Your task to perform on an android device: snooze an email in the gmail app Image 0: 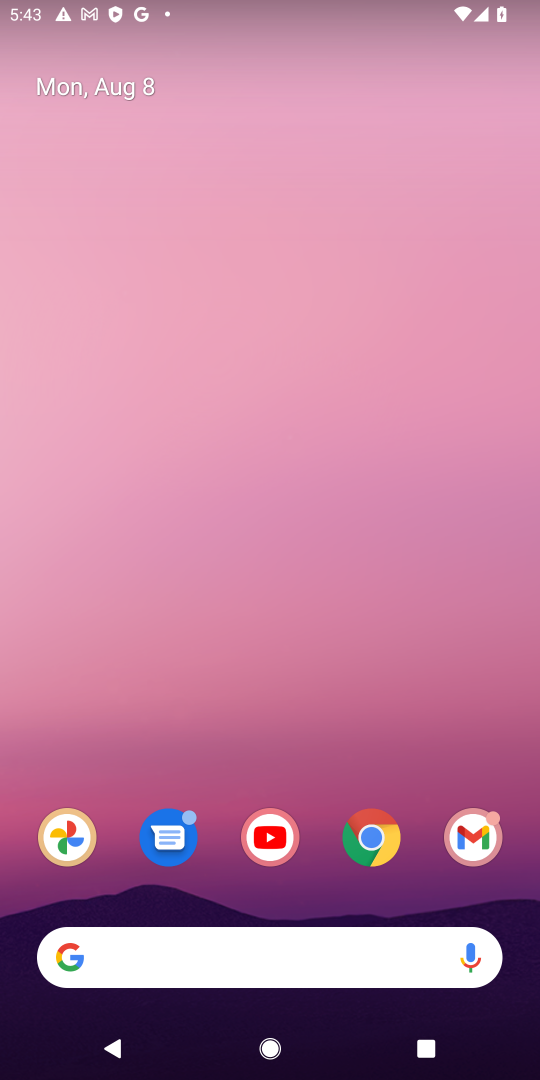
Step 0: drag from (257, 777) to (374, 1)
Your task to perform on an android device: snooze an email in the gmail app Image 1: 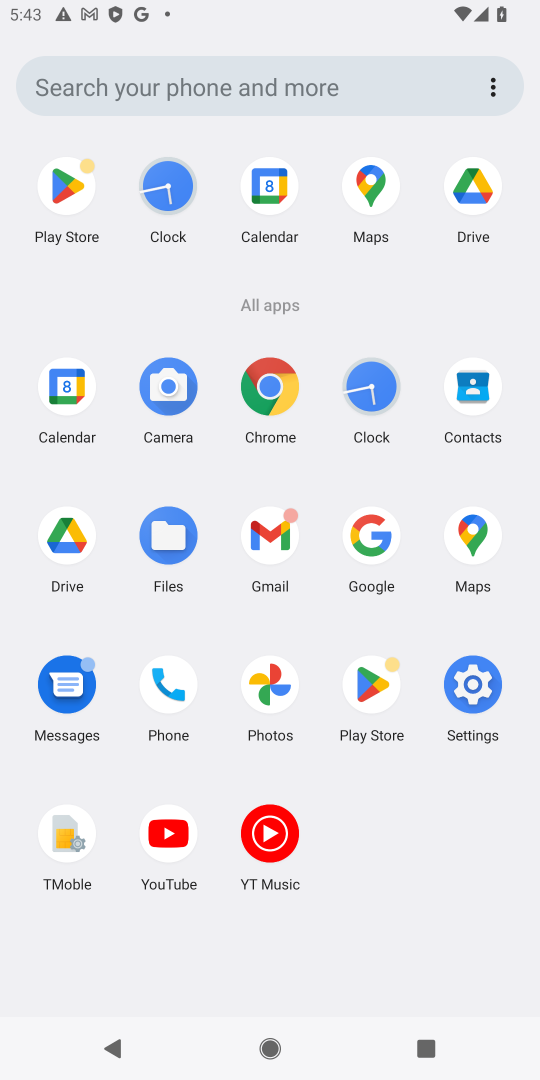
Step 1: click (306, 537)
Your task to perform on an android device: snooze an email in the gmail app Image 2: 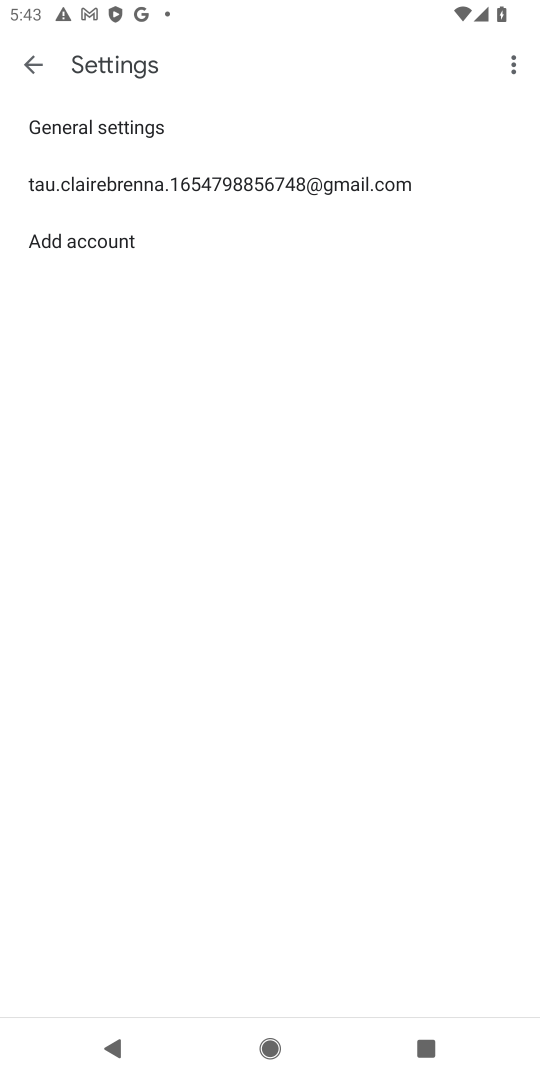
Step 2: click (26, 65)
Your task to perform on an android device: snooze an email in the gmail app Image 3: 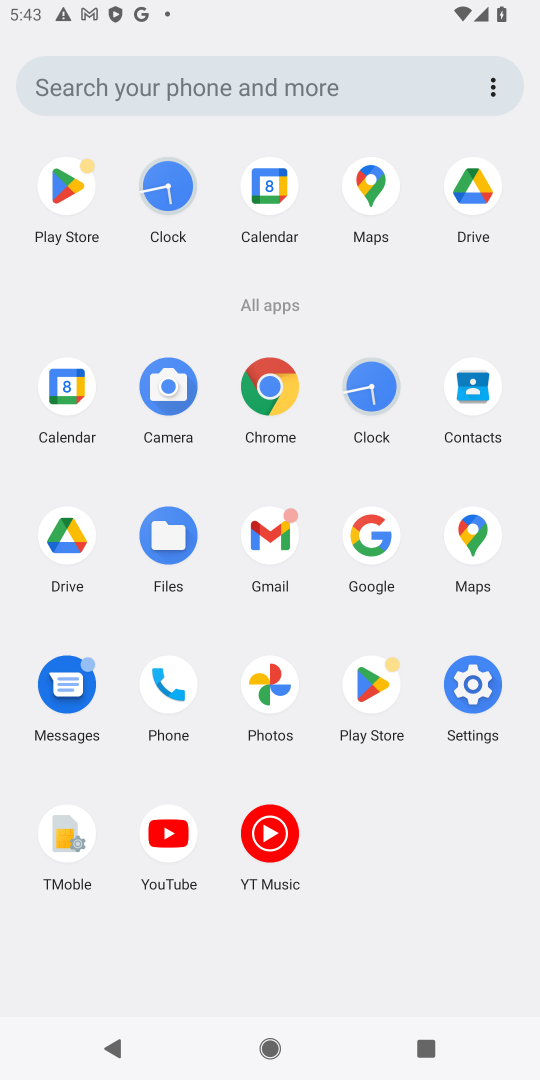
Step 3: click (289, 547)
Your task to perform on an android device: snooze an email in the gmail app Image 4: 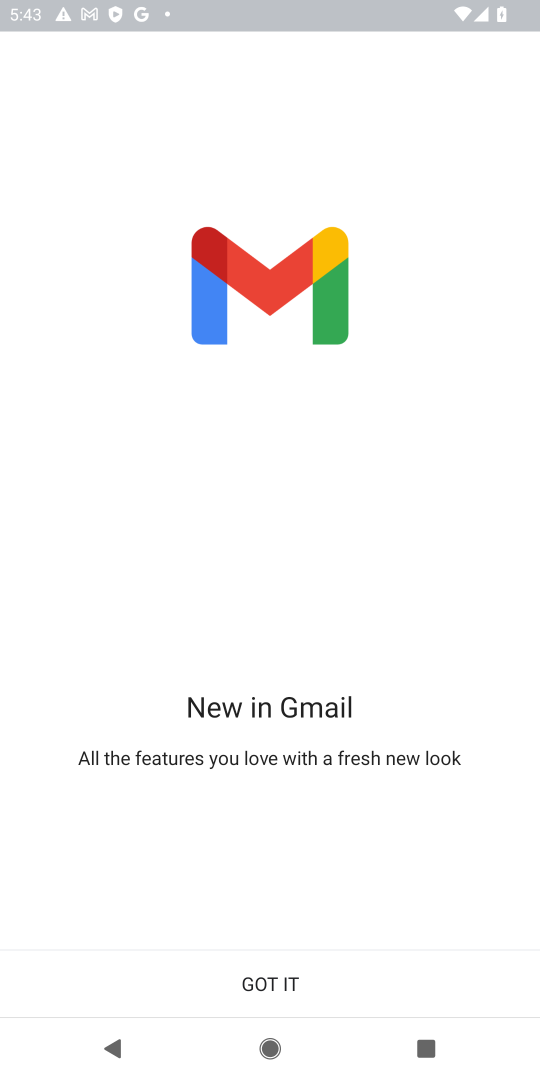
Step 4: click (282, 982)
Your task to perform on an android device: snooze an email in the gmail app Image 5: 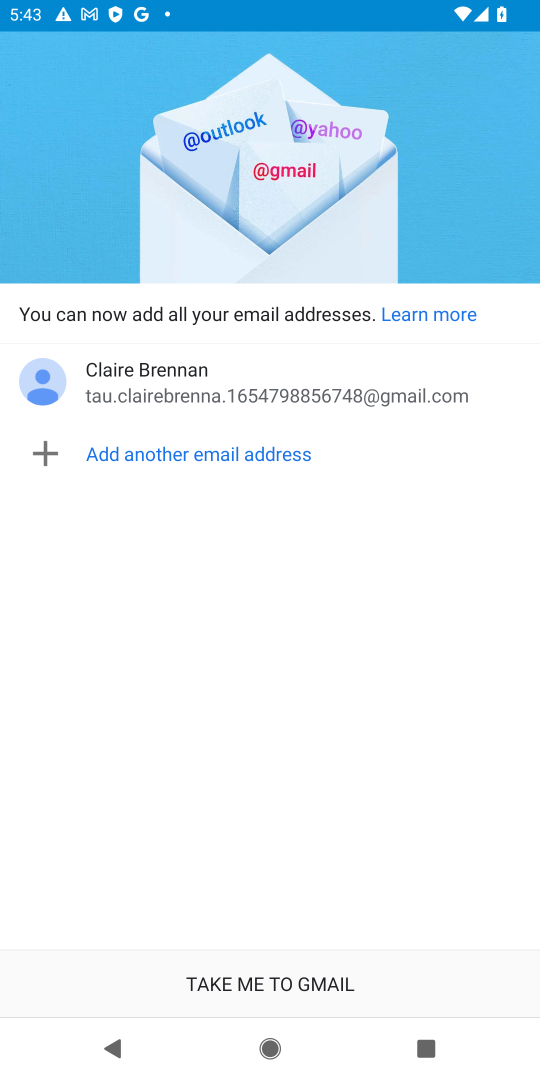
Step 5: click (298, 982)
Your task to perform on an android device: snooze an email in the gmail app Image 6: 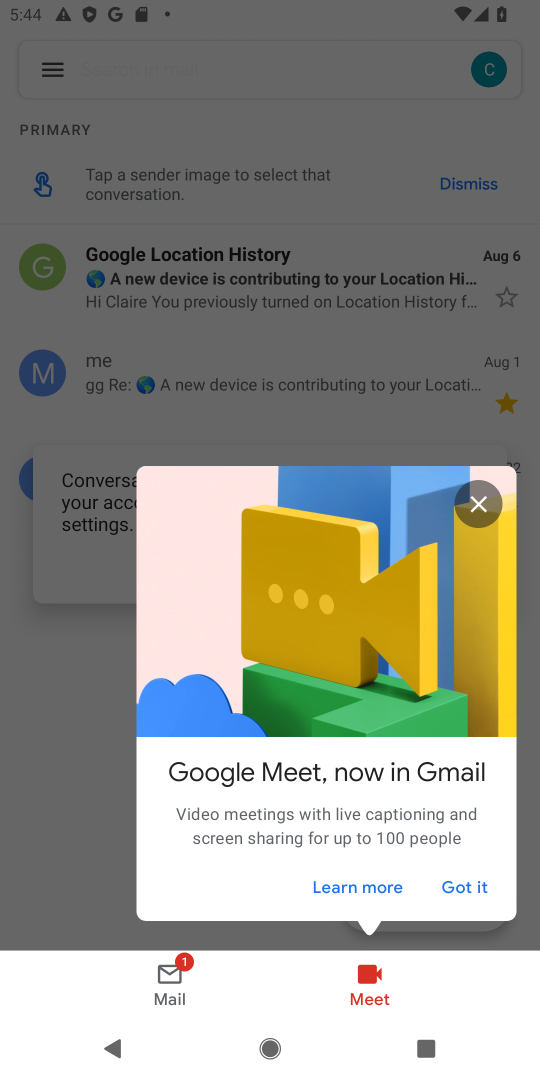
Step 6: click (488, 508)
Your task to perform on an android device: snooze an email in the gmail app Image 7: 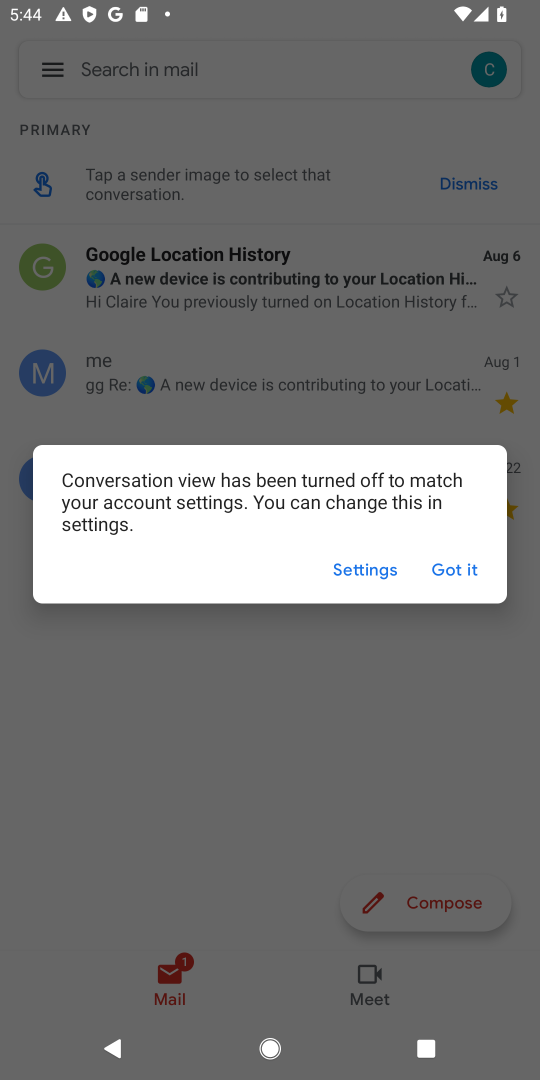
Step 7: click (459, 569)
Your task to perform on an android device: snooze an email in the gmail app Image 8: 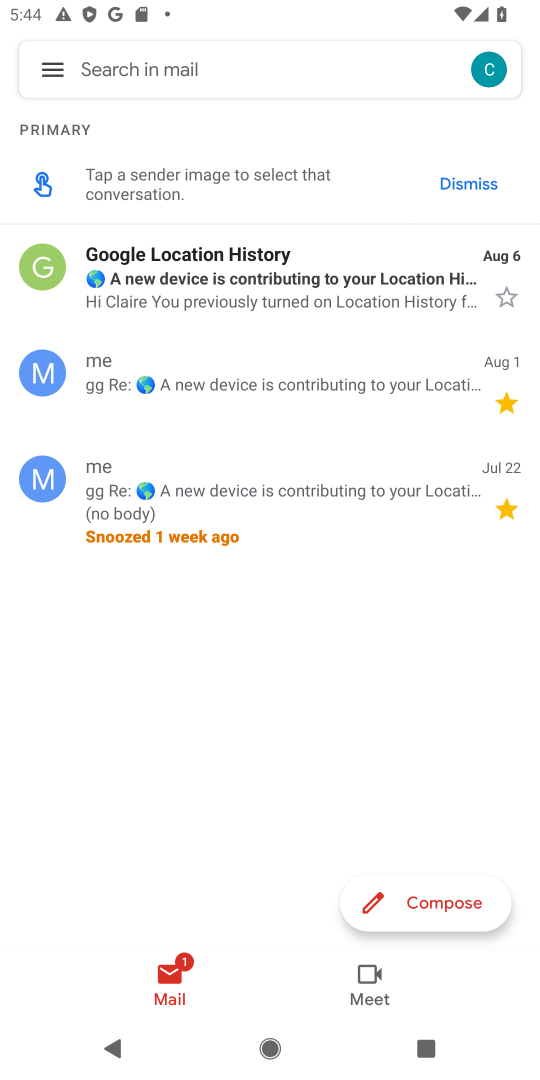
Step 8: click (65, 85)
Your task to perform on an android device: snooze an email in the gmail app Image 9: 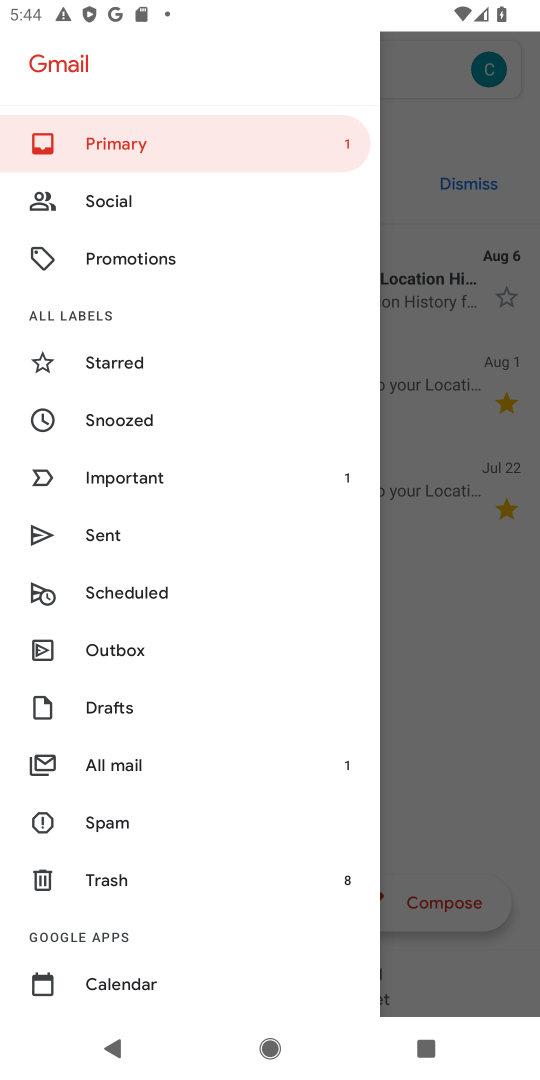
Step 9: drag from (139, 953) to (280, 80)
Your task to perform on an android device: snooze an email in the gmail app Image 10: 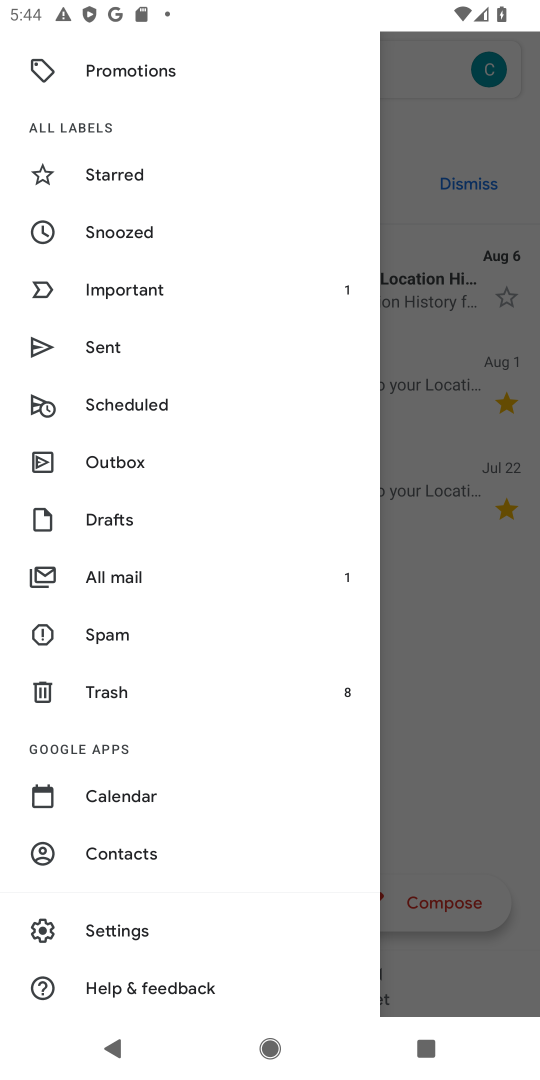
Step 10: drag from (257, 392) to (285, 983)
Your task to perform on an android device: snooze an email in the gmail app Image 11: 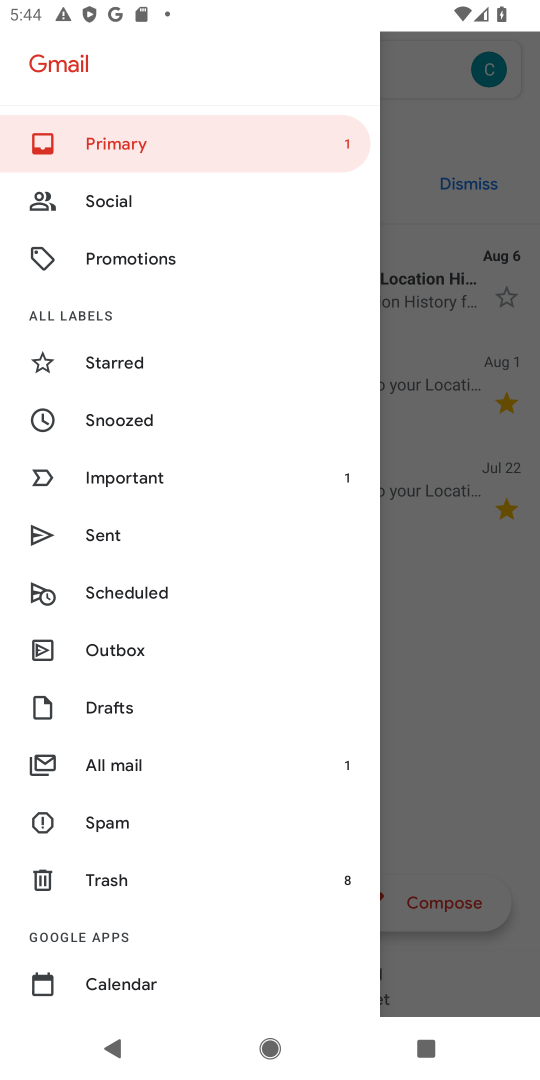
Step 11: drag from (193, 864) to (344, 130)
Your task to perform on an android device: snooze an email in the gmail app Image 12: 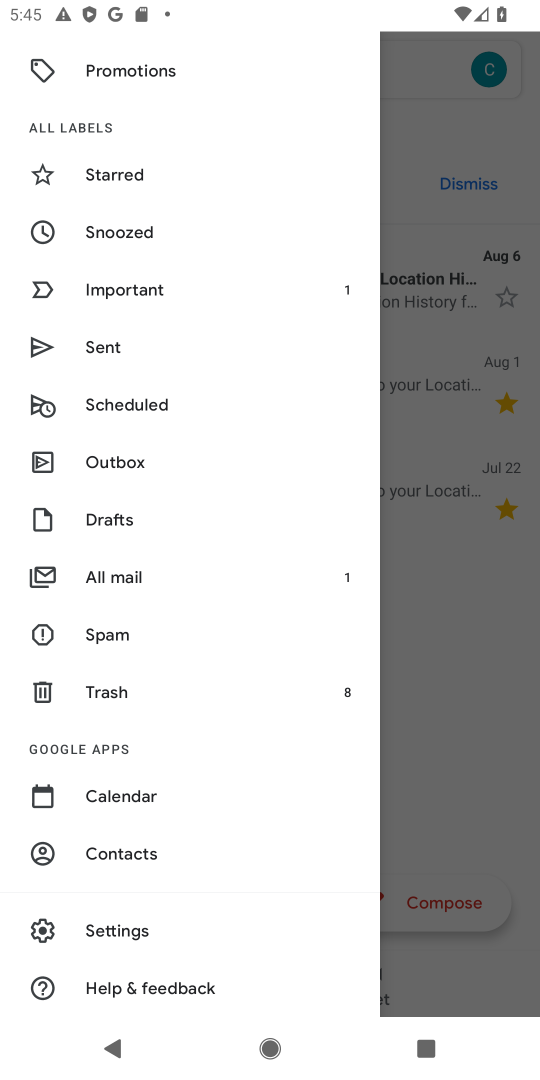
Step 12: drag from (140, 351) to (156, 868)
Your task to perform on an android device: snooze an email in the gmail app Image 13: 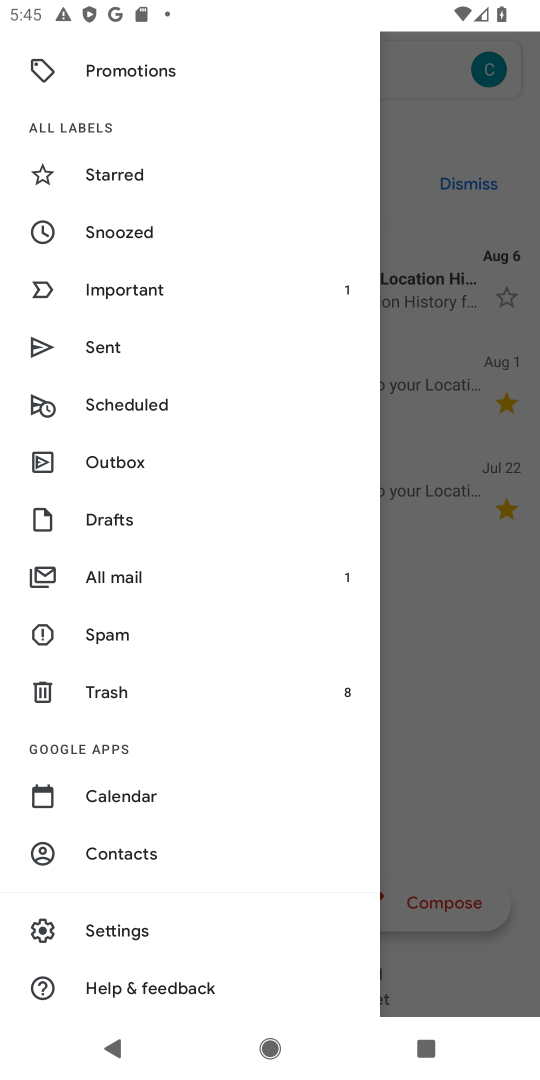
Step 13: click (68, 572)
Your task to perform on an android device: snooze an email in the gmail app Image 14: 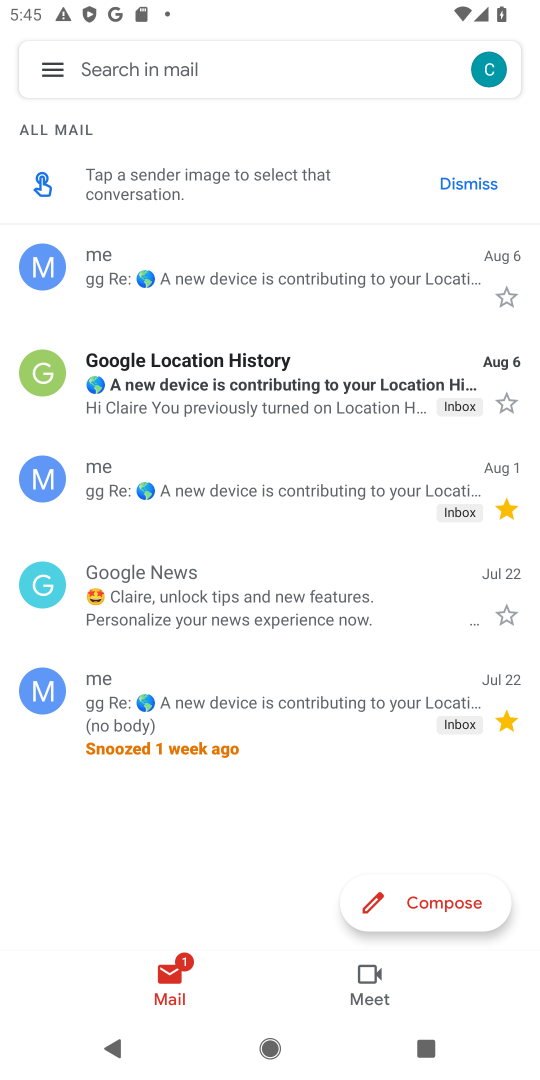
Step 14: click (187, 264)
Your task to perform on an android device: snooze an email in the gmail app Image 15: 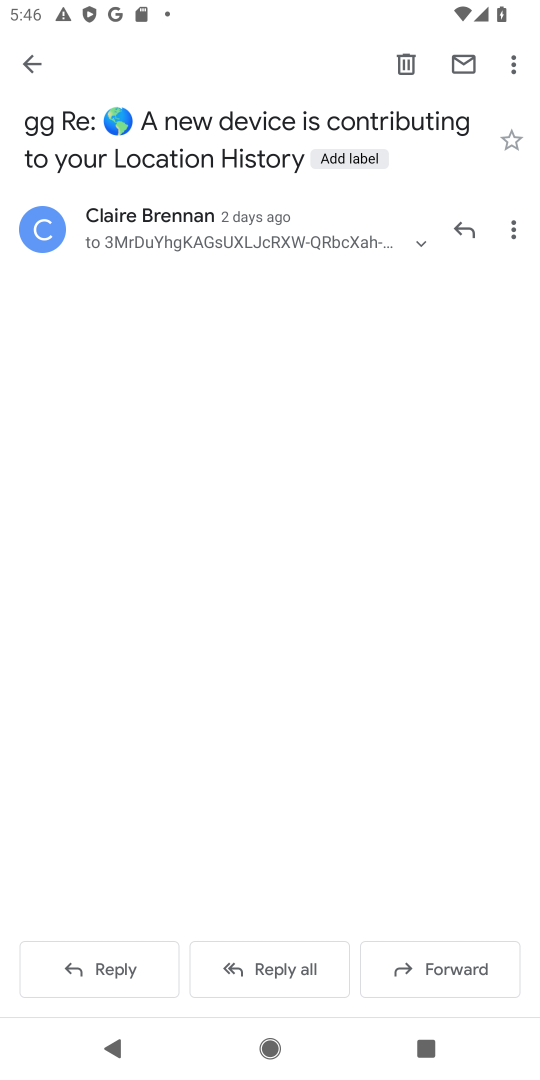
Step 15: click (510, 80)
Your task to perform on an android device: snooze an email in the gmail app Image 16: 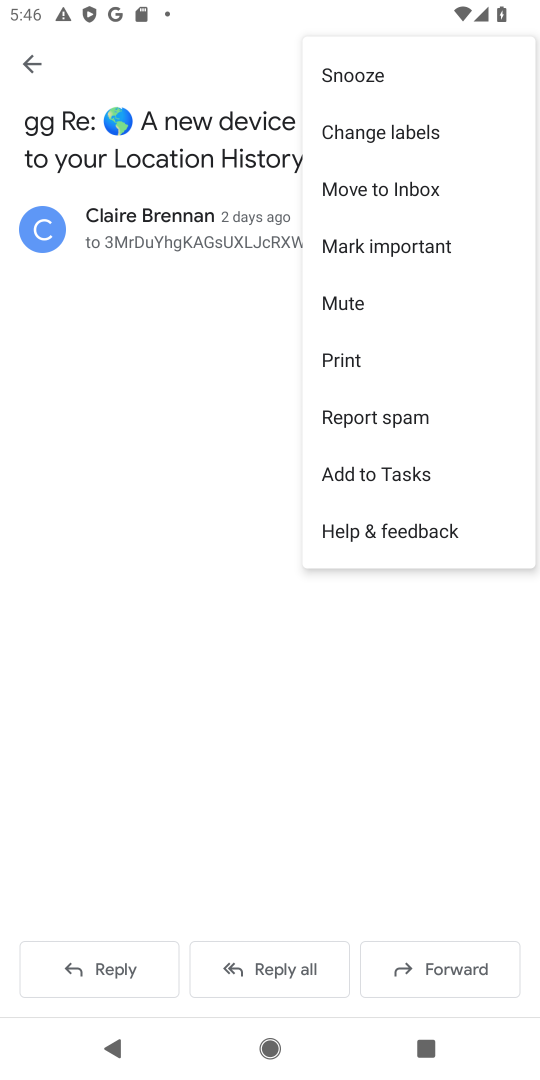
Step 16: click (371, 68)
Your task to perform on an android device: snooze an email in the gmail app Image 17: 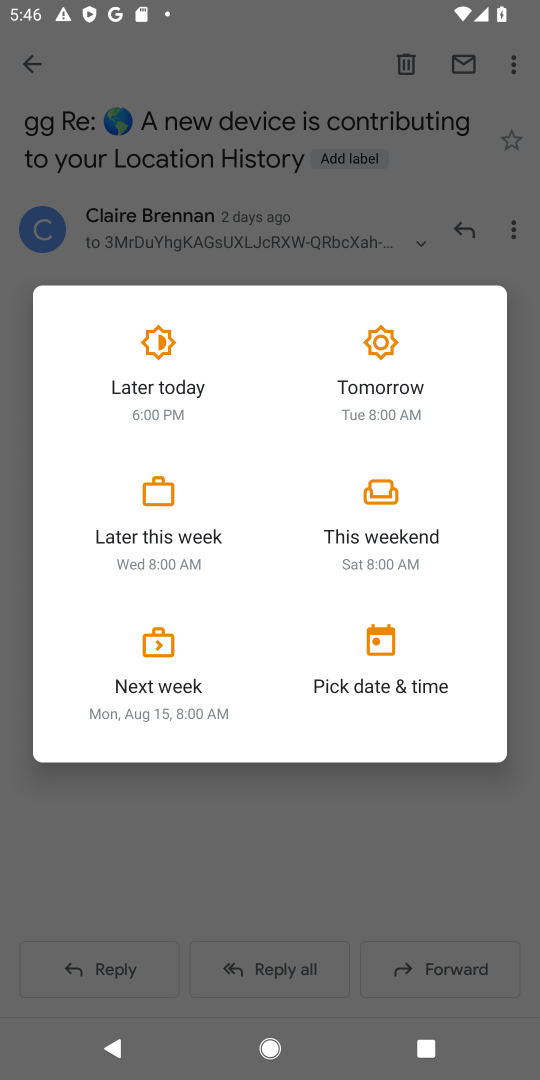
Step 17: click (166, 376)
Your task to perform on an android device: snooze an email in the gmail app Image 18: 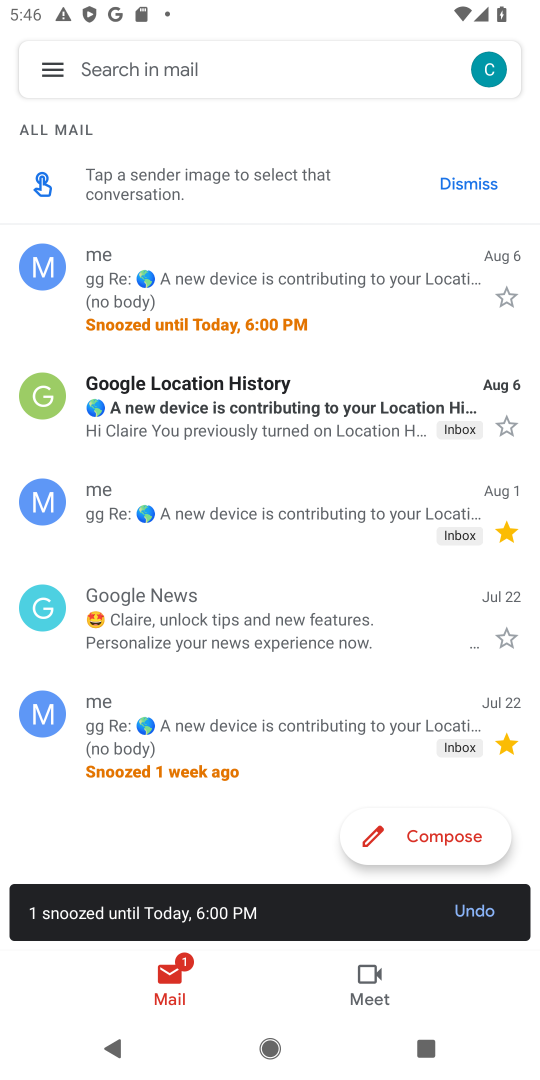
Step 18: task complete